Your task to perform on an android device: clear history in the chrome app Image 0: 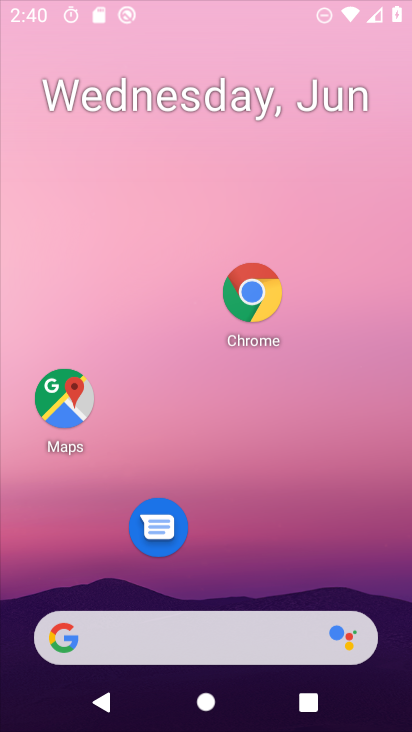
Step 0: click (269, 279)
Your task to perform on an android device: clear history in the chrome app Image 1: 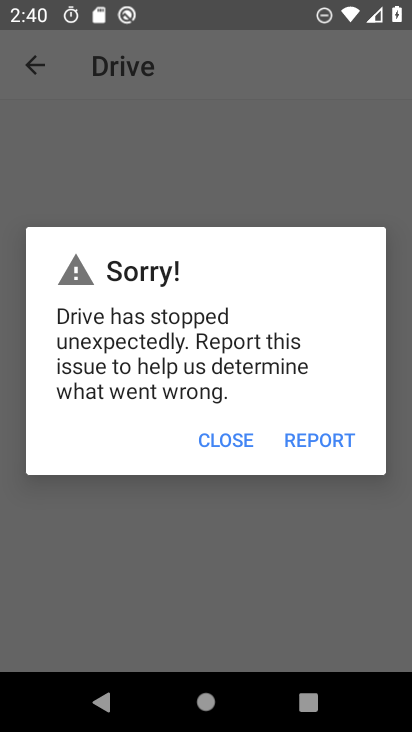
Step 1: press home button
Your task to perform on an android device: clear history in the chrome app Image 2: 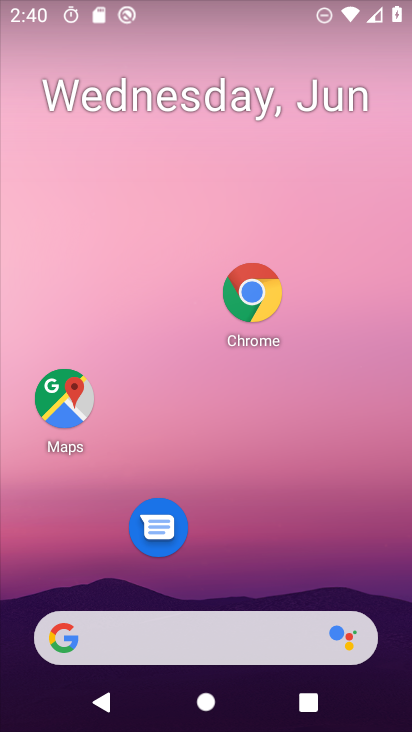
Step 2: click (233, 308)
Your task to perform on an android device: clear history in the chrome app Image 3: 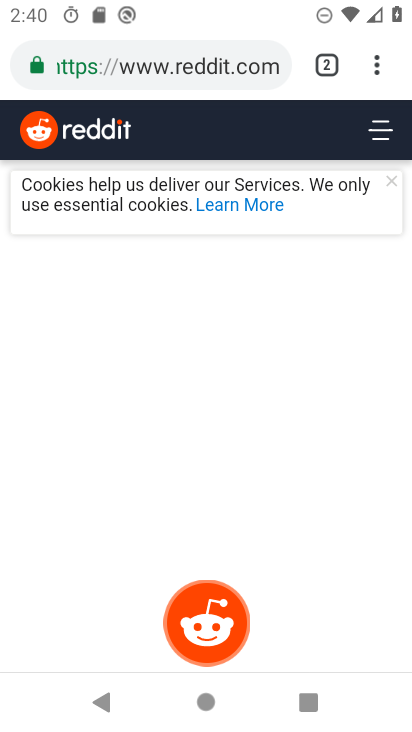
Step 3: click (373, 65)
Your task to perform on an android device: clear history in the chrome app Image 4: 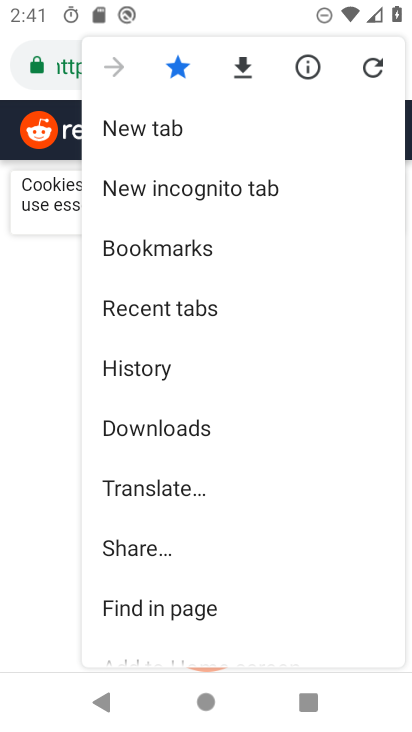
Step 4: click (149, 368)
Your task to perform on an android device: clear history in the chrome app Image 5: 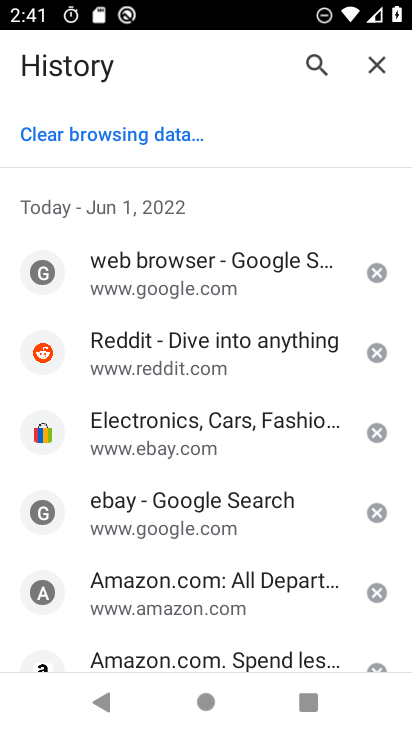
Step 5: click (142, 128)
Your task to perform on an android device: clear history in the chrome app Image 6: 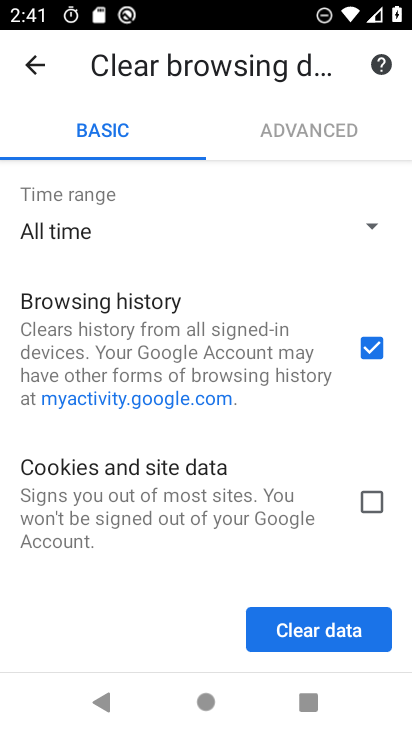
Step 6: click (318, 632)
Your task to perform on an android device: clear history in the chrome app Image 7: 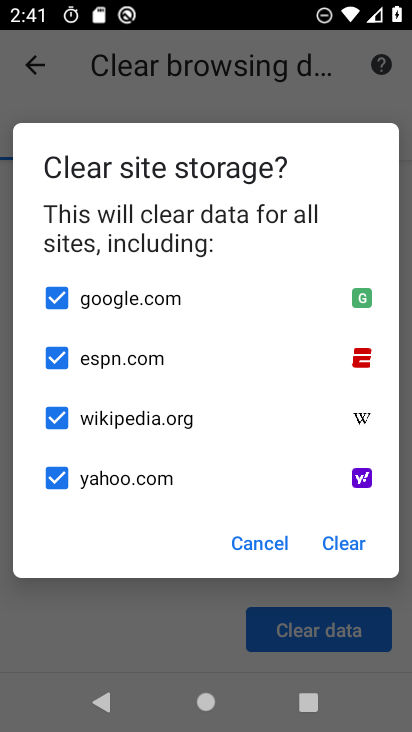
Step 7: click (339, 540)
Your task to perform on an android device: clear history in the chrome app Image 8: 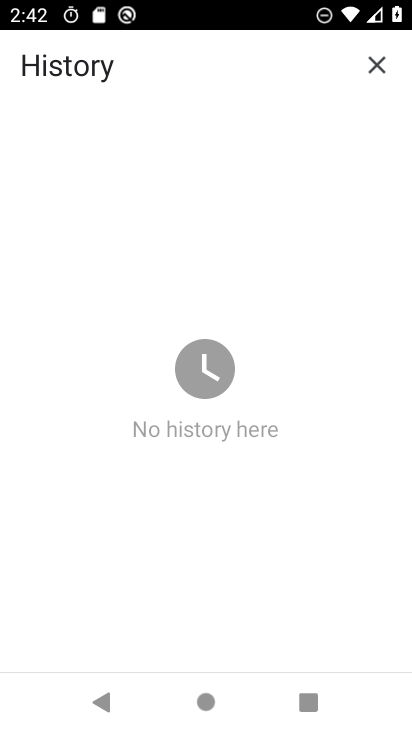
Step 8: task complete